Your task to perform on an android device: Open maps Image 0: 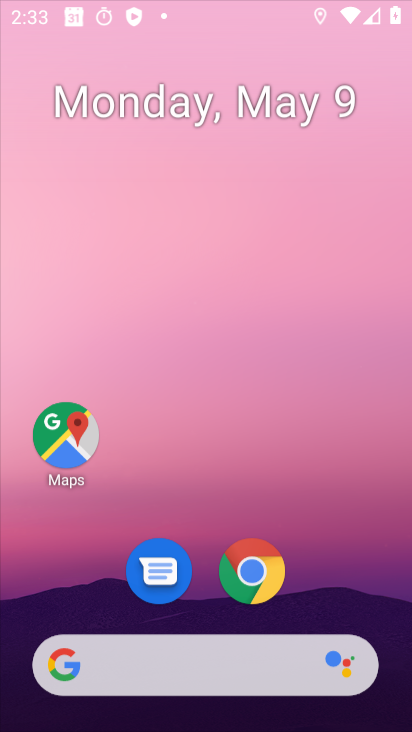
Step 0: drag from (370, 336) to (385, 214)
Your task to perform on an android device: Open maps Image 1: 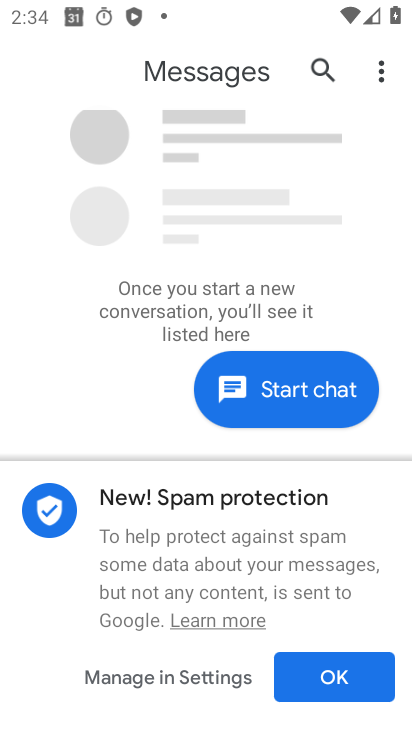
Step 1: click (331, 679)
Your task to perform on an android device: Open maps Image 2: 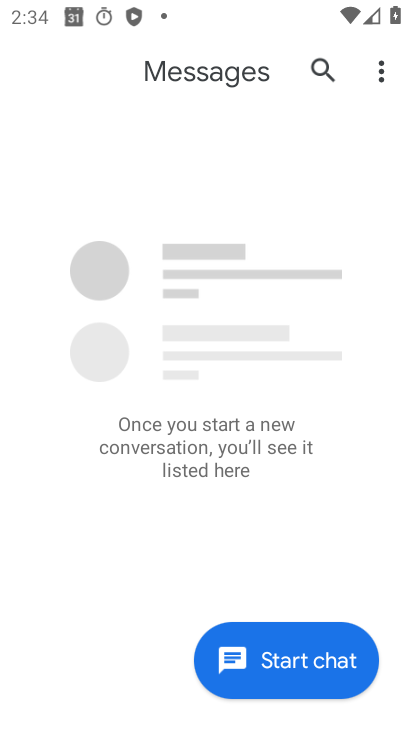
Step 2: click (333, 672)
Your task to perform on an android device: Open maps Image 3: 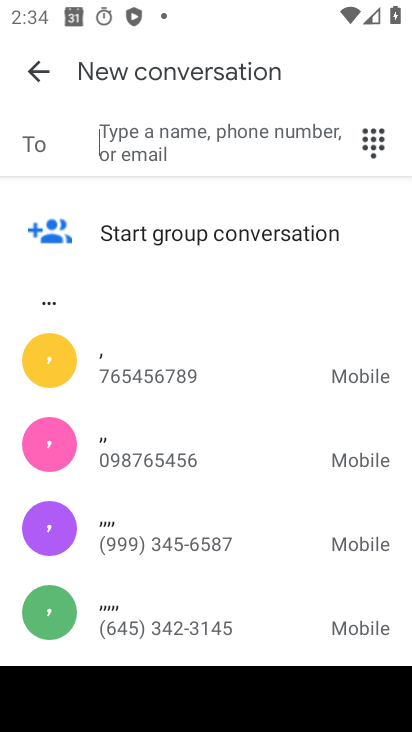
Step 3: press home button
Your task to perform on an android device: Open maps Image 4: 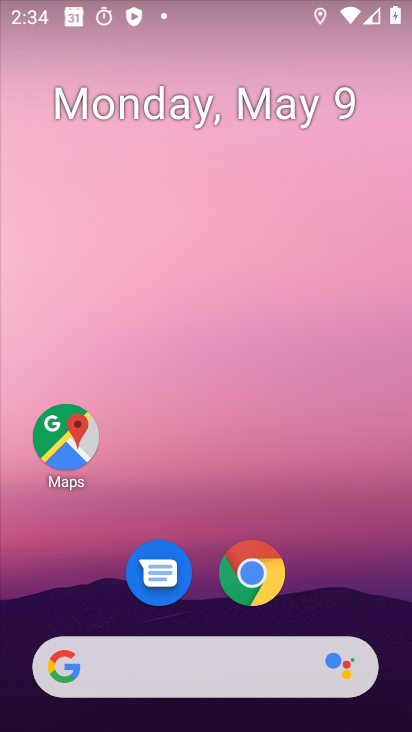
Step 4: click (74, 447)
Your task to perform on an android device: Open maps Image 5: 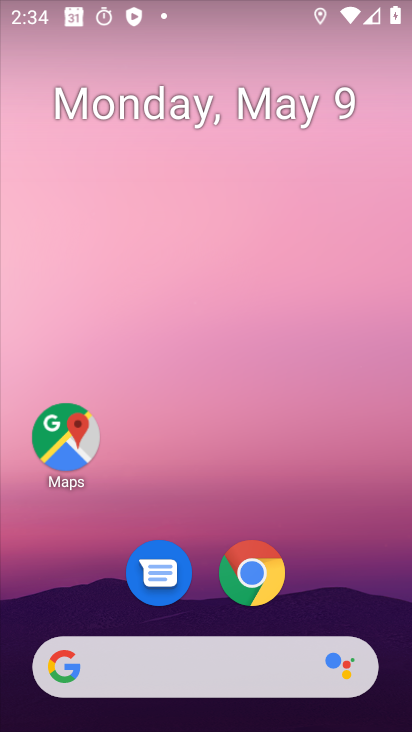
Step 5: click (74, 447)
Your task to perform on an android device: Open maps Image 6: 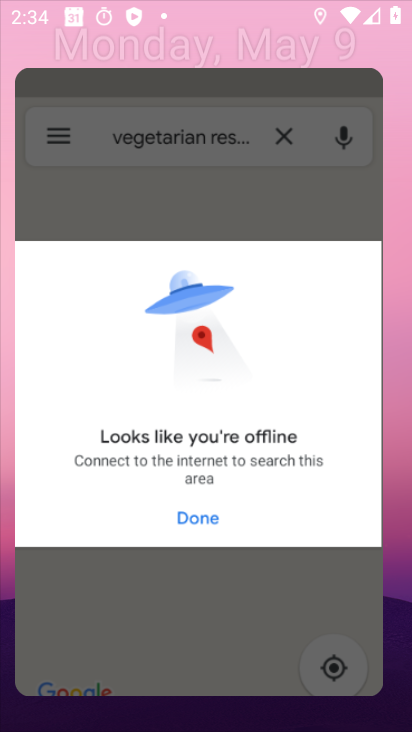
Step 6: click (74, 447)
Your task to perform on an android device: Open maps Image 7: 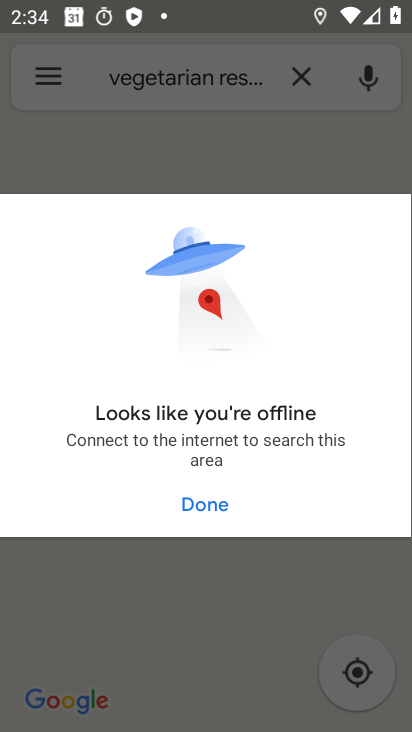
Step 7: task complete